Your task to perform on an android device: Open Google Image 0: 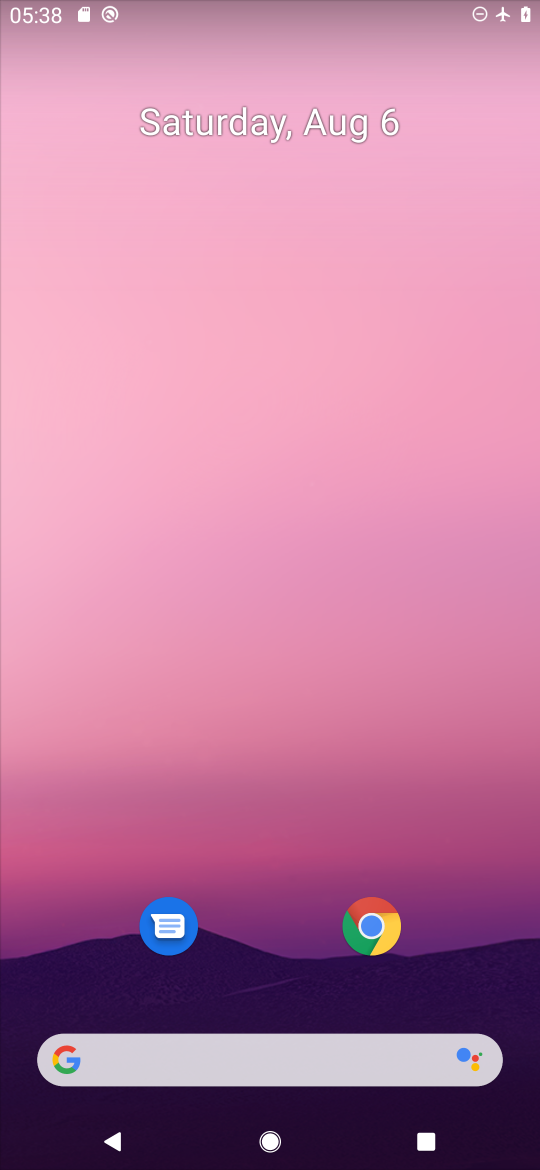
Step 0: drag from (270, 902) to (272, 316)
Your task to perform on an android device: Open Google Image 1: 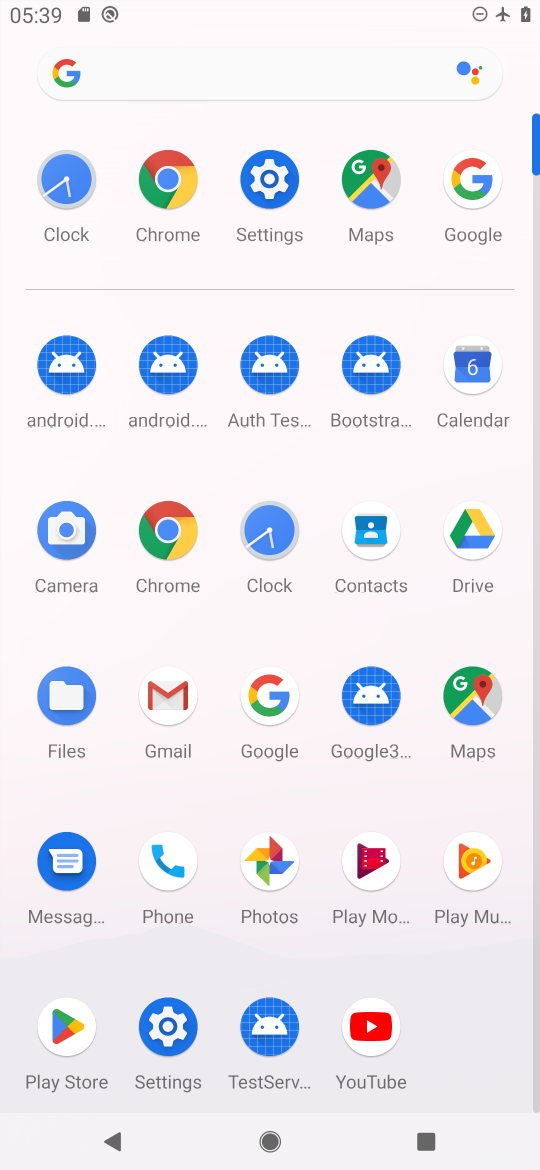
Step 1: click (289, 707)
Your task to perform on an android device: Open Google Image 2: 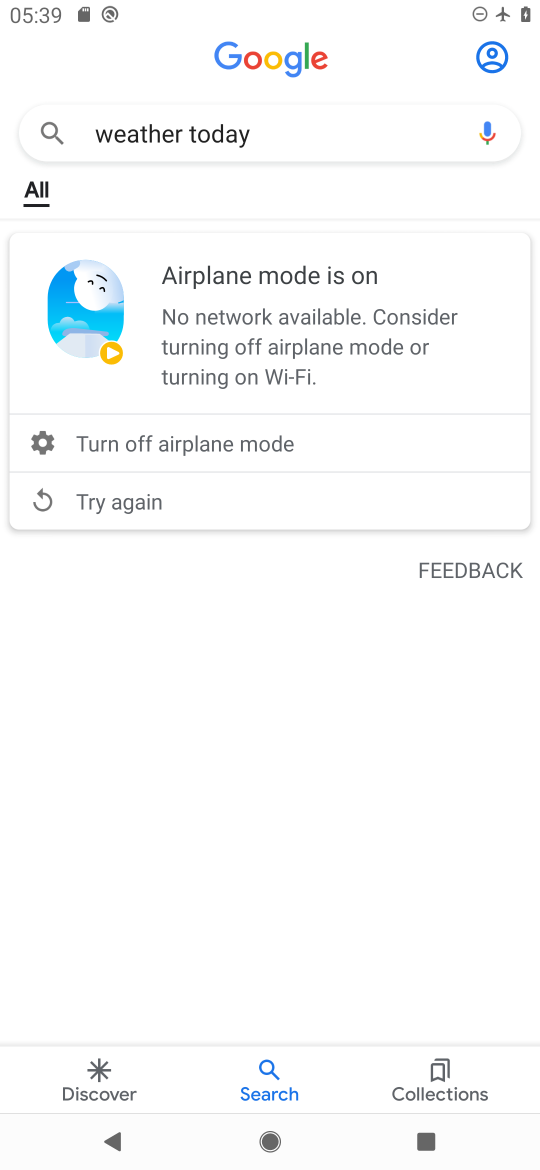
Step 2: task complete